Your task to perform on an android device: change the clock display to show seconds Image 0: 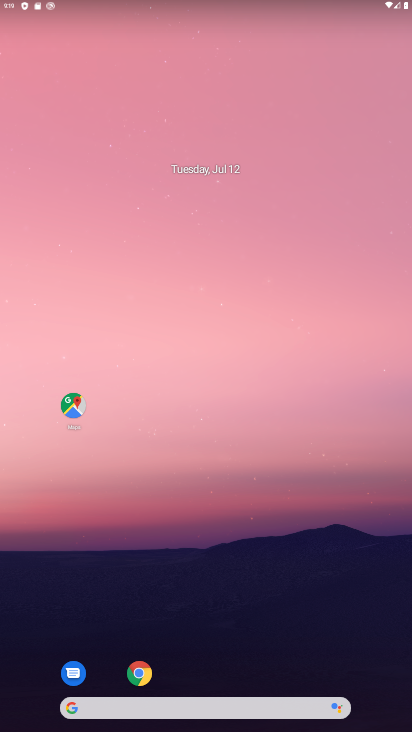
Step 0: drag from (381, 696) to (288, 197)
Your task to perform on an android device: change the clock display to show seconds Image 1: 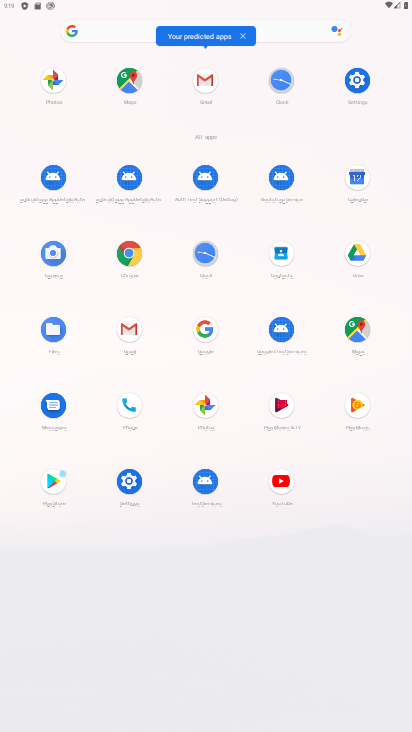
Step 1: click (205, 247)
Your task to perform on an android device: change the clock display to show seconds Image 2: 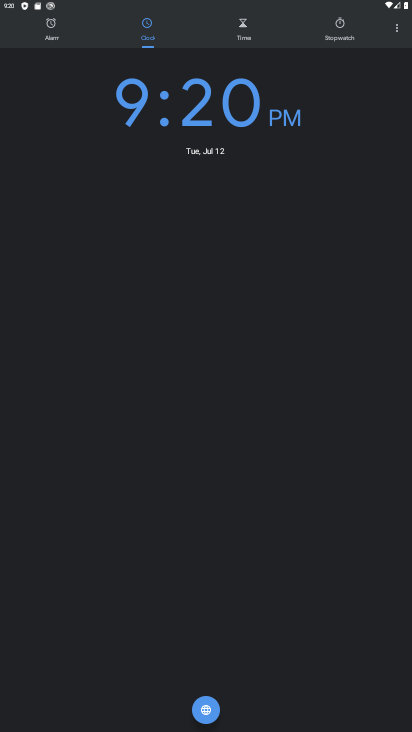
Step 2: click (394, 28)
Your task to perform on an android device: change the clock display to show seconds Image 3: 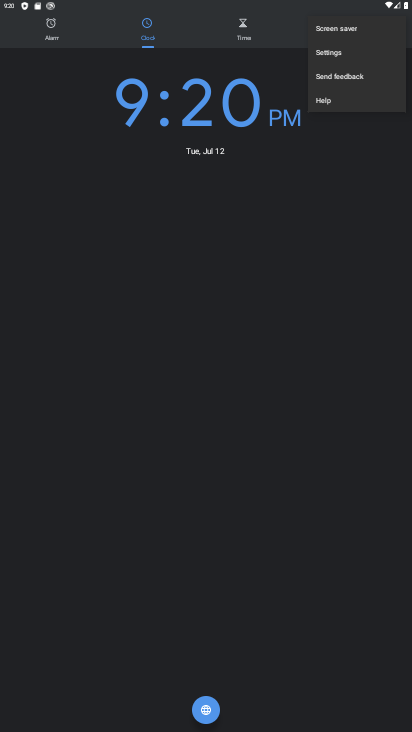
Step 3: click (331, 55)
Your task to perform on an android device: change the clock display to show seconds Image 4: 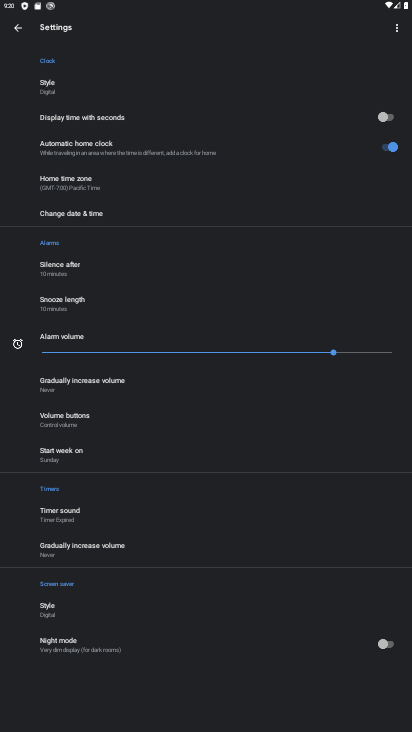
Step 4: click (46, 85)
Your task to perform on an android device: change the clock display to show seconds Image 5: 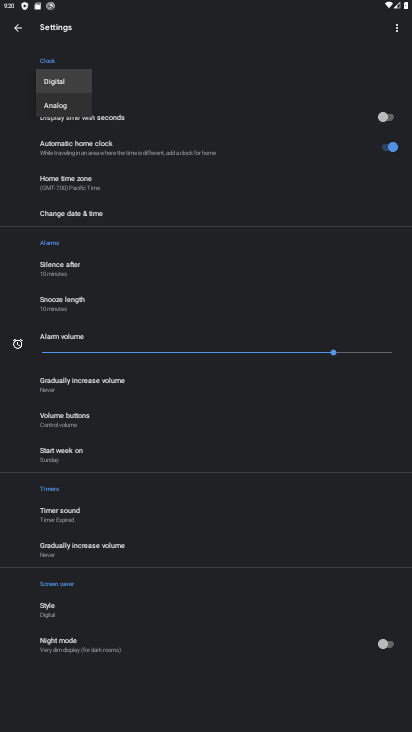
Step 5: click (384, 119)
Your task to perform on an android device: change the clock display to show seconds Image 6: 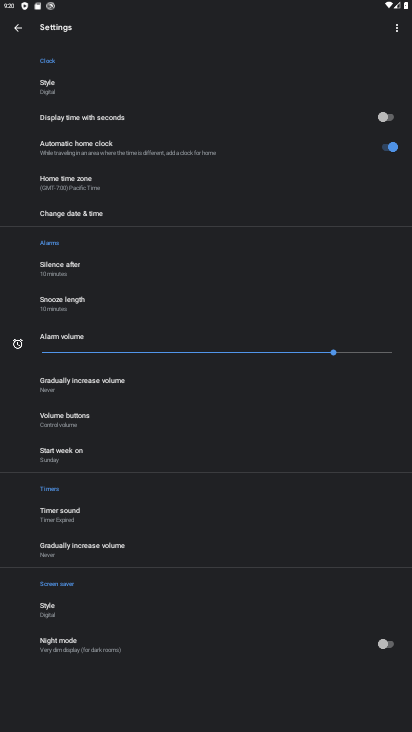
Step 6: click (394, 115)
Your task to perform on an android device: change the clock display to show seconds Image 7: 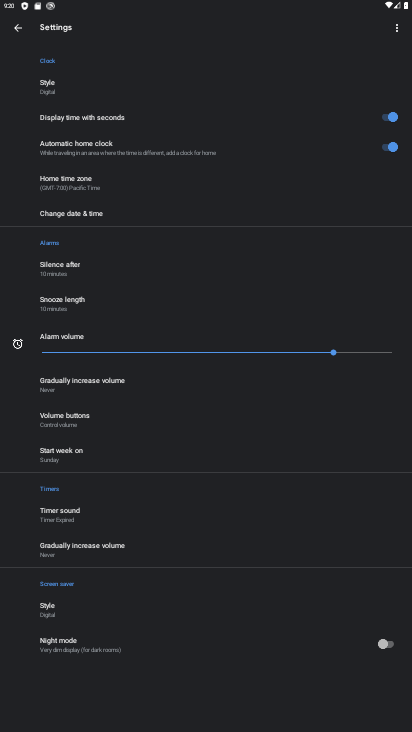
Step 7: task complete